Your task to perform on an android device: Find coffee shops on Maps Image 0: 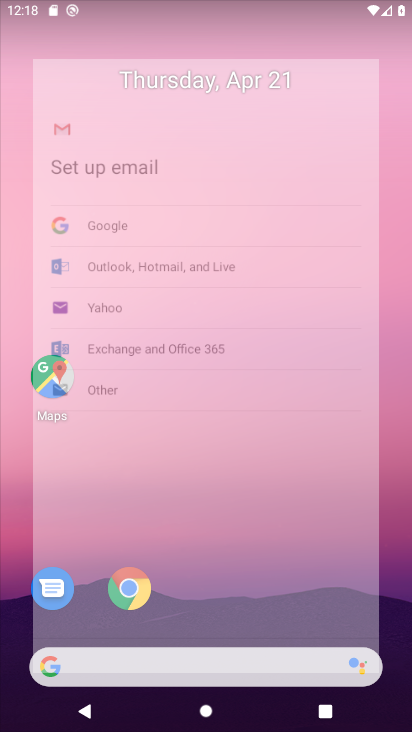
Step 0: drag from (208, 620) to (197, 0)
Your task to perform on an android device: Find coffee shops on Maps Image 1: 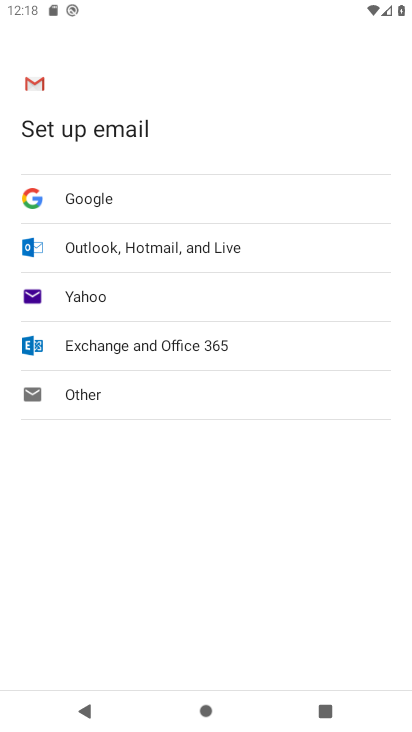
Step 1: press home button
Your task to perform on an android device: Find coffee shops on Maps Image 2: 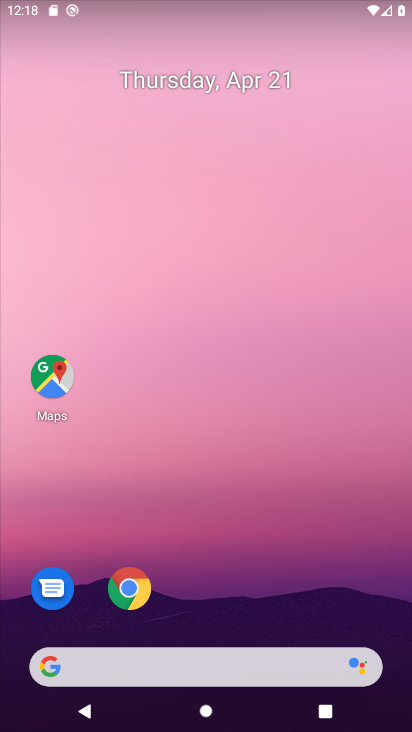
Step 2: click (52, 373)
Your task to perform on an android device: Find coffee shops on Maps Image 3: 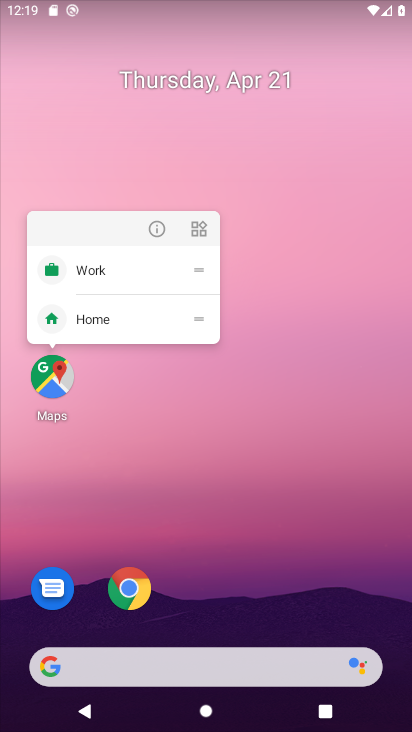
Step 3: click (184, 378)
Your task to perform on an android device: Find coffee shops on Maps Image 4: 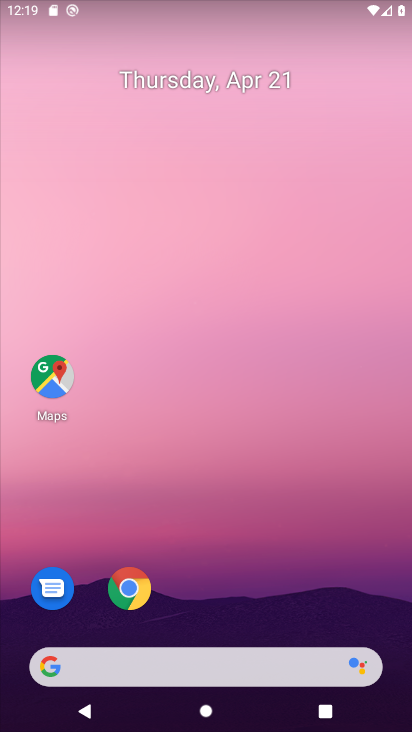
Step 4: click (225, 150)
Your task to perform on an android device: Find coffee shops on Maps Image 5: 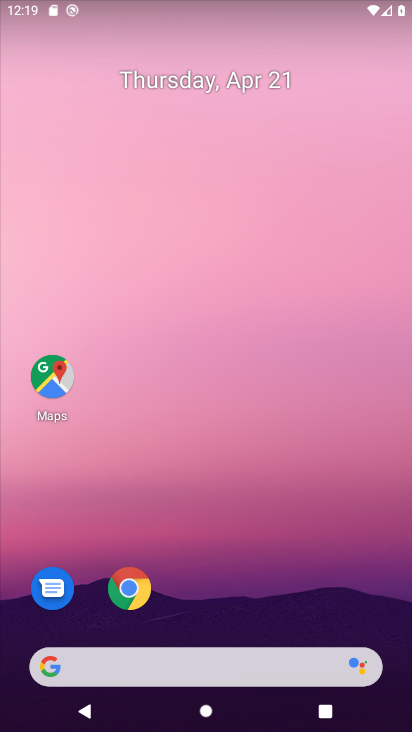
Step 5: click (51, 372)
Your task to perform on an android device: Find coffee shops on Maps Image 6: 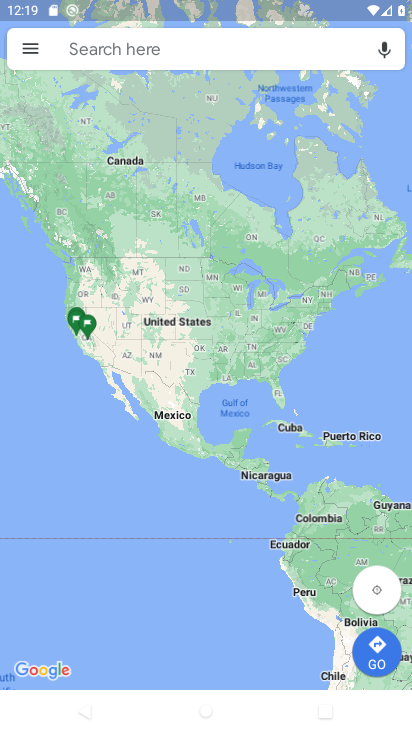
Step 6: click (84, 47)
Your task to perform on an android device: Find coffee shops on Maps Image 7: 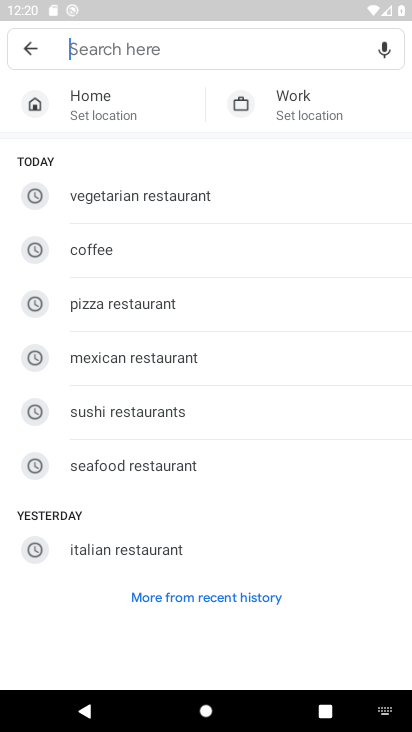
Step 7: click (121, 247)
Your task to perform on an android device: Find coffee shops on Maps Image 8: 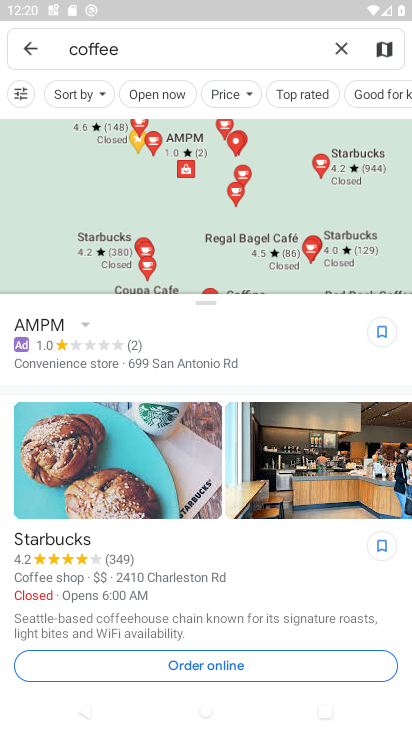
Step 8: task complete